Your task to perform on an android device: Open Chrome and go to the settings page Image 0: 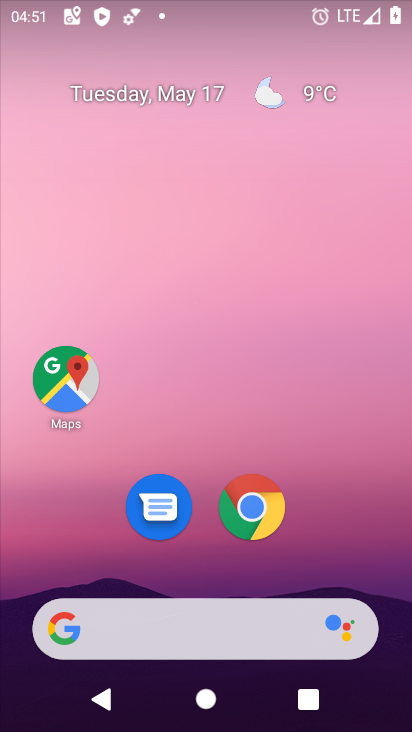
Step 0: click (263, 515)
Your task to perform on an android device: Open Chrome and go to the settings page Image 1: 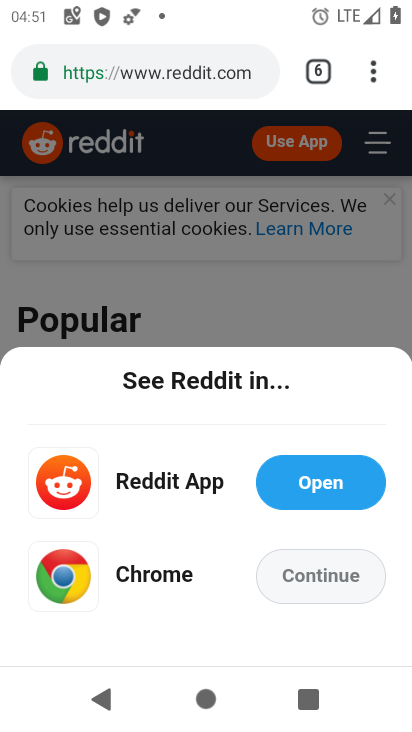
Step 1: click (376, 76)
Your task to perform on an android device: Open Chrome and go to the settings page Image 2: 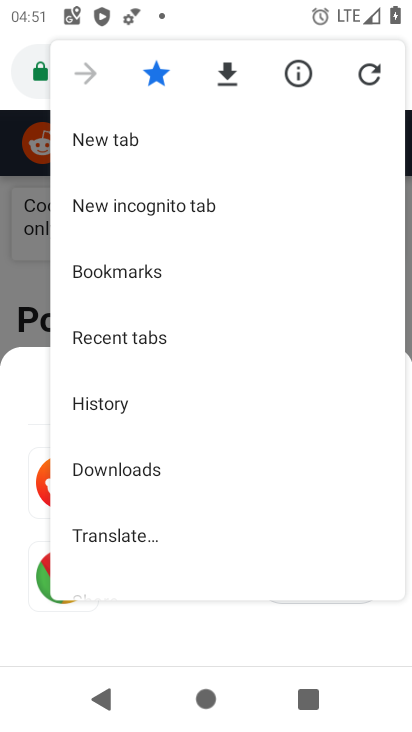
Step 2: drag from (219, 514) to (187, 89)
Your task to perform on an android device: Open Chrome and go to the settings page Image 3: 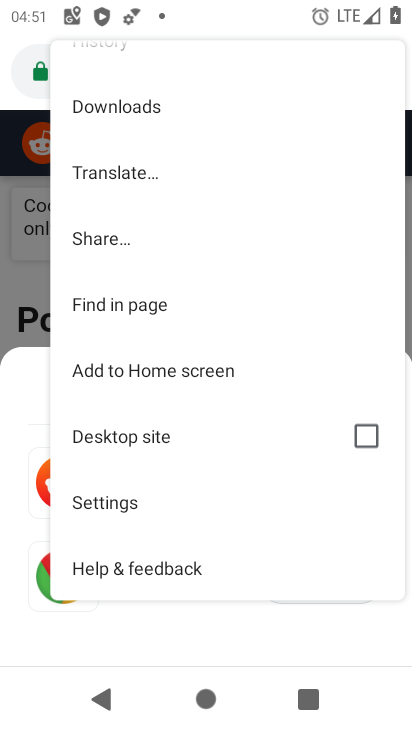
Step 3: click (161, 496)
Your task to perform on an android device: Open Chrome and go to the settings page Image 4: 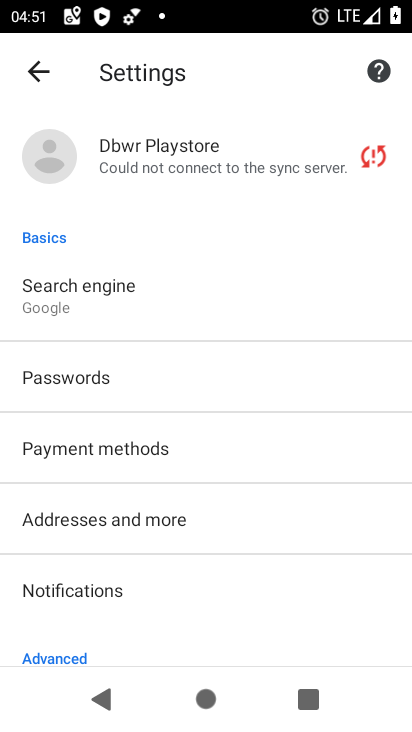
Step 4: task complete